Your task to perform on an android device: See recent photos Image 0: 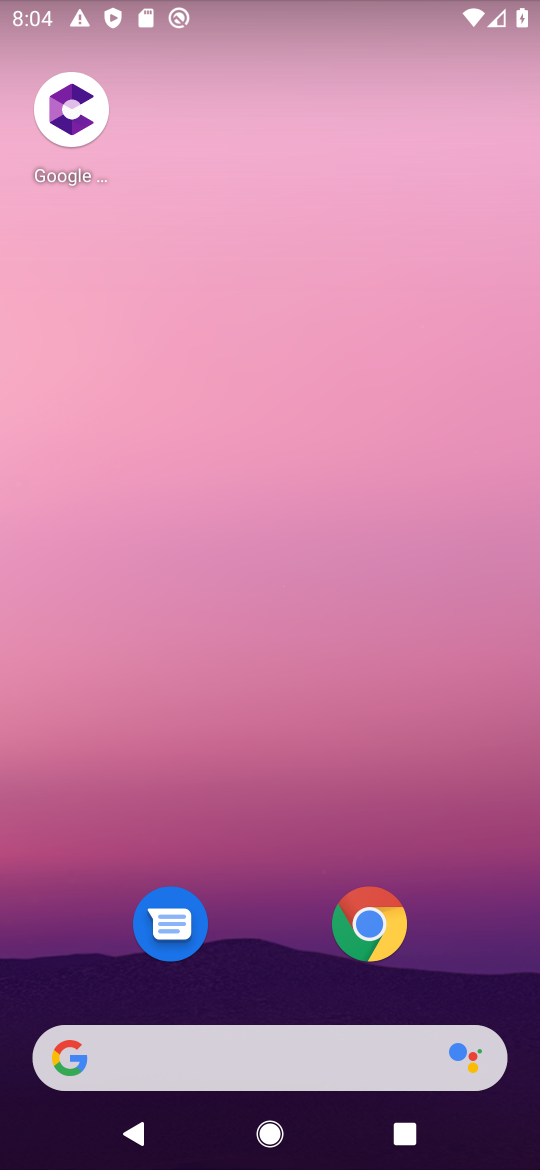
Step 0: drag from (488, 987) to (411, 119)
Your task to perform on an android device: See recent photos Image 1: 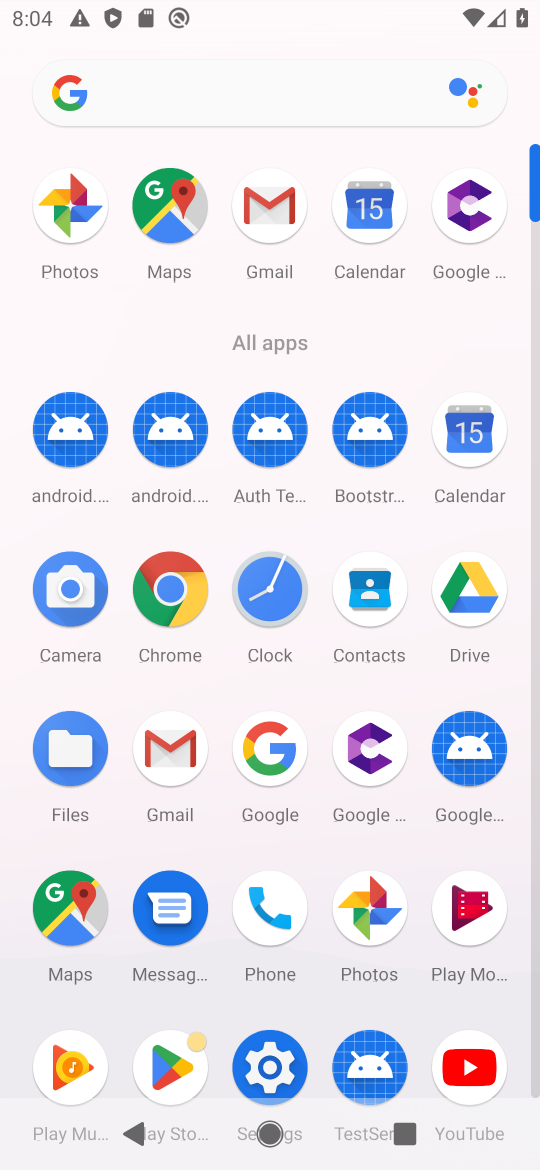
Step 1: click (370, 909)
Your task to perform on an android device: See recent photos Image 2: 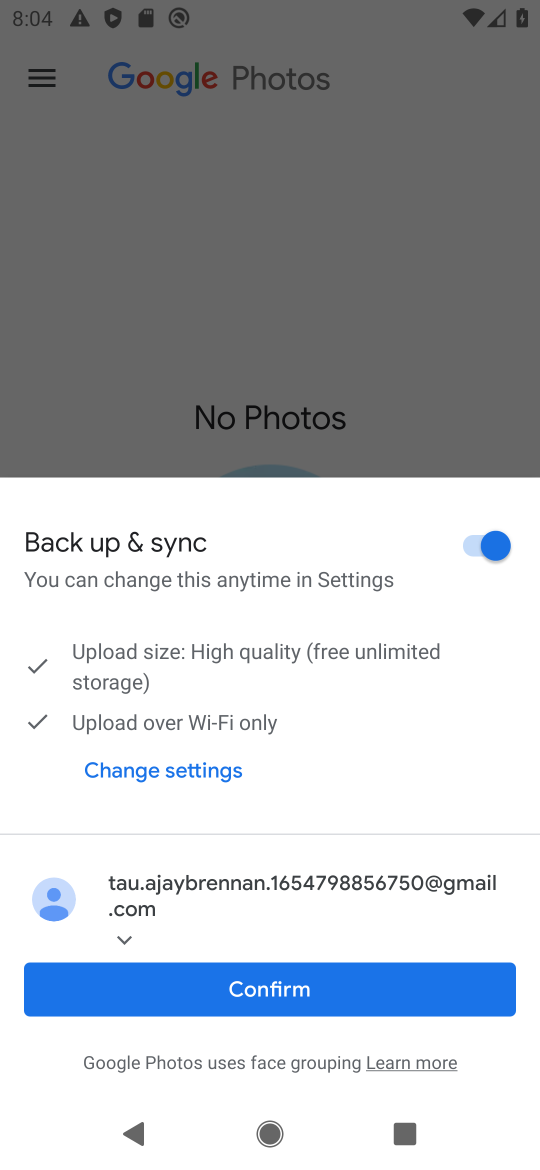
Step 2: click (272, 984)
Your task to perform on an android device: See recent photos Image 3: 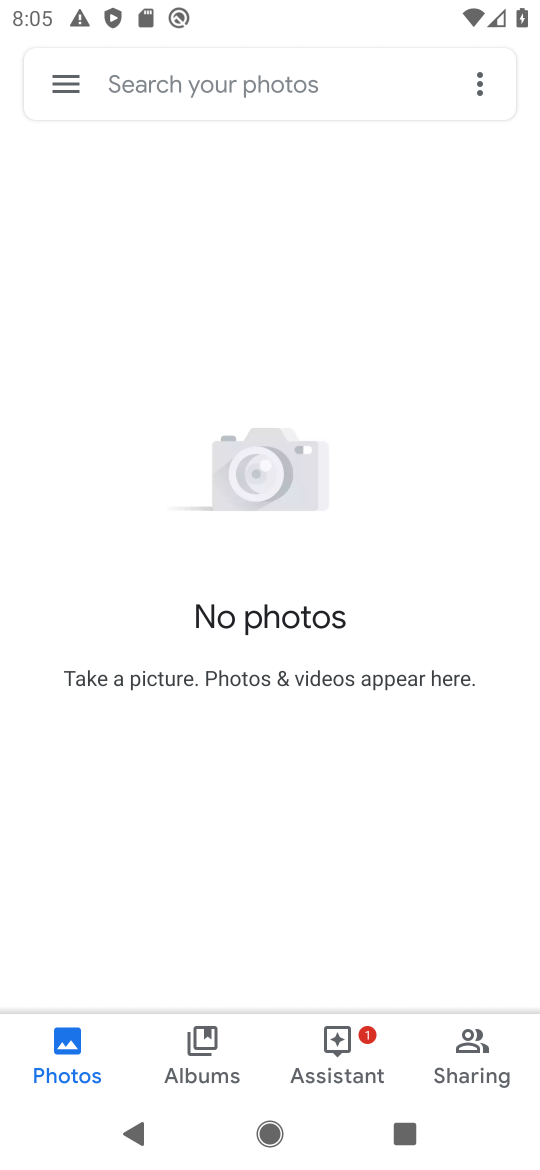
Step 3: task complete